Your task to perform on an android device: turn notification dots off Image 0: 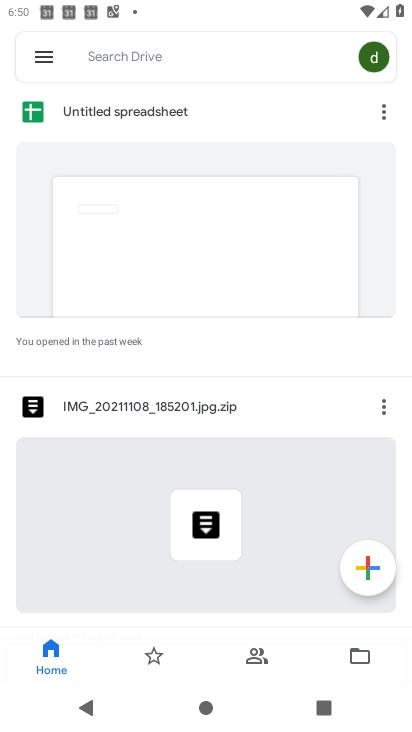
Step 0: press home button
Your task to perform on an android device: turn notification dots off Image 1: 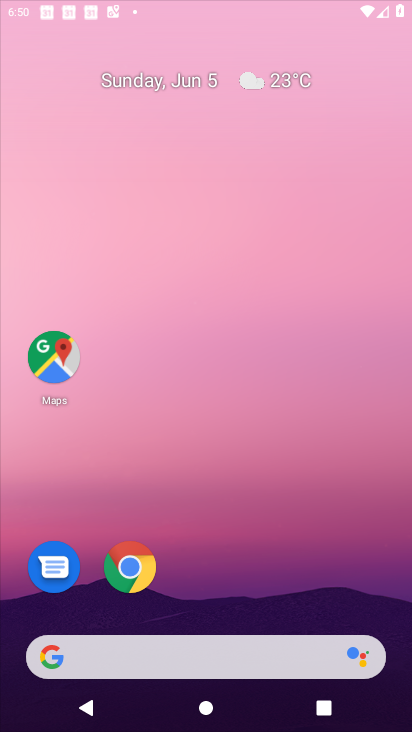
Step 1: drag from (383, 623) to (267, 41)
Your task to perform on an android device: turn notification dots off Image 2: 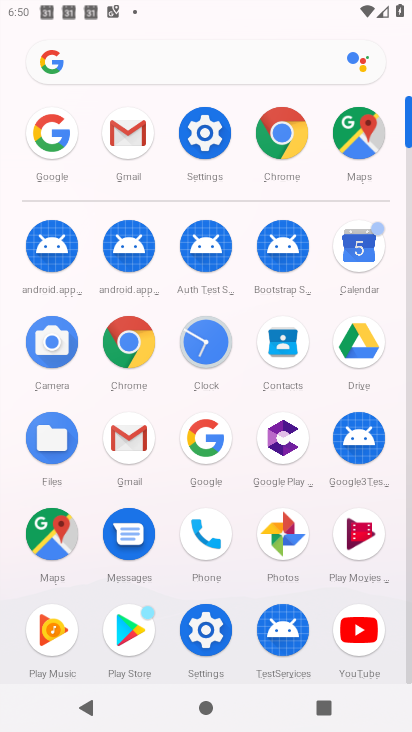
Step 2: click (204, 150)
Your task to perform on an android device: turn notification dots off Image 3: 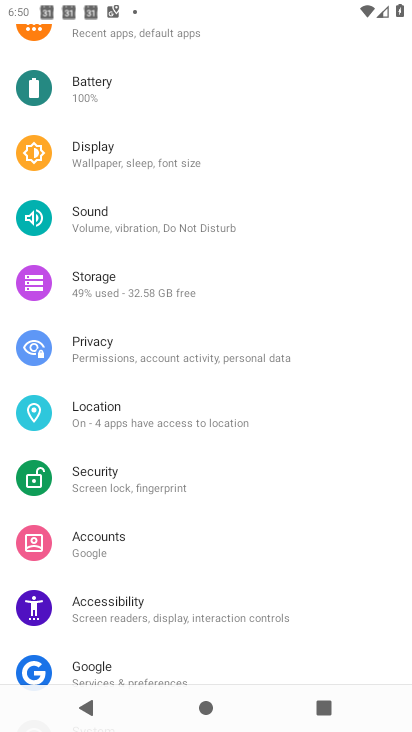
Step 3: drag from (204, 135) to (229, 636)
Your task to perform on an android device: turn notification dots off Image 4: 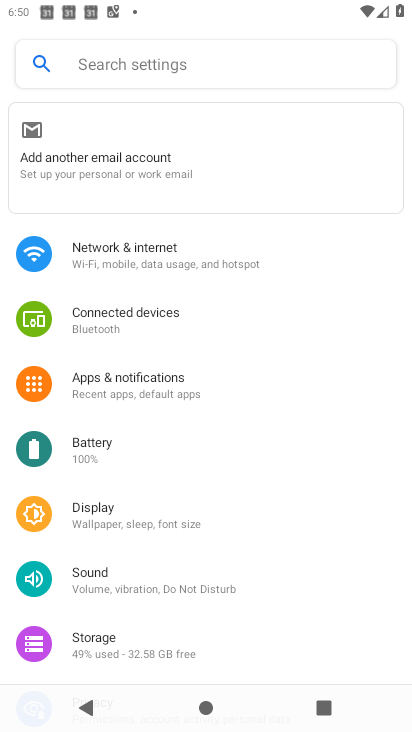
Step 4: click (158, 390)
Your task to perform on an android device: turn notification dots off Image 5: 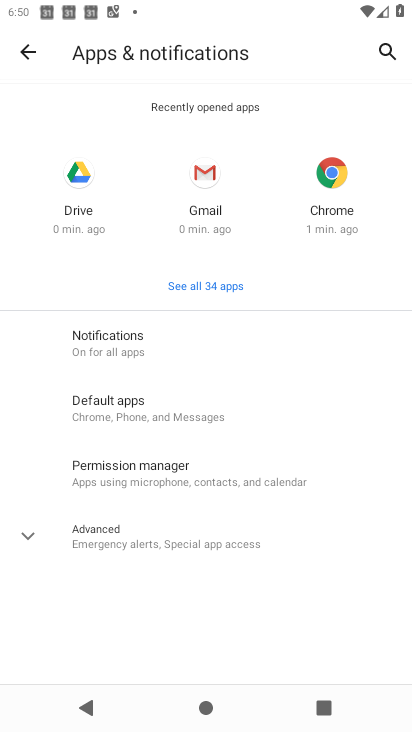
Step 5: click (138, 337)
Your task to perform on an android device: turn notification dots off Image 6: 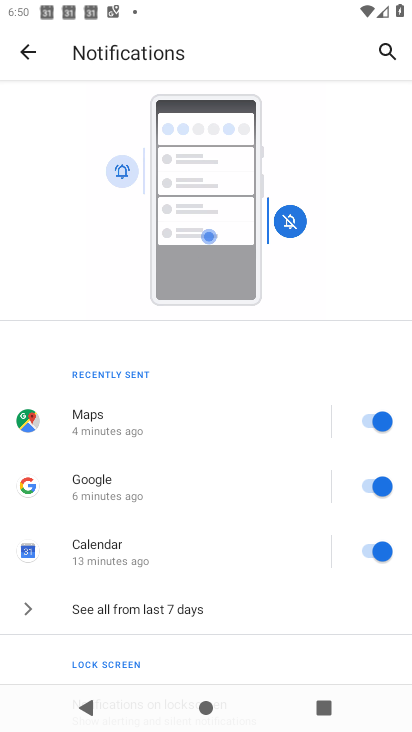
Step 6: drag from (148, 621) to (123, 110)
Your task to perform on an android device: turn notification dots off Image 7: 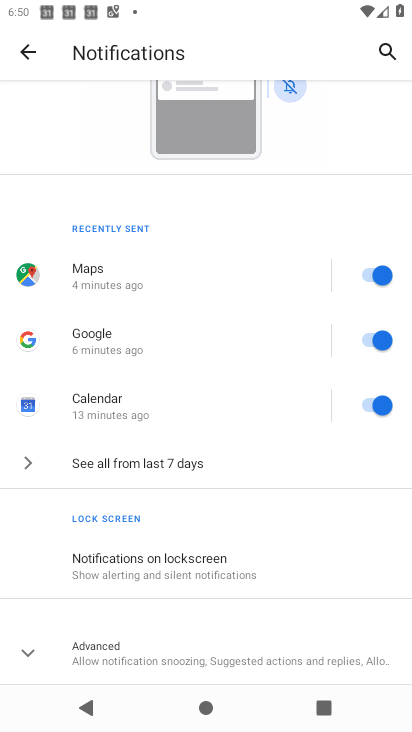
Step 7: click (148, 646)
Your task to perform on an android device: turn notification dots off Image 8: 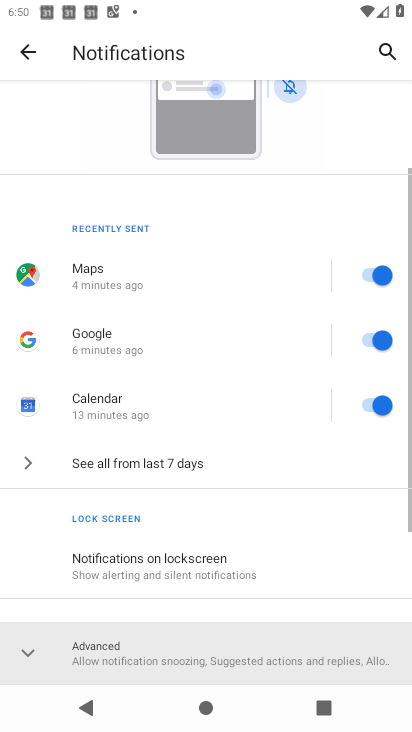
Step 8: click (168, 661)
Your task to perform on an android device: turn notification dots off Image 9: 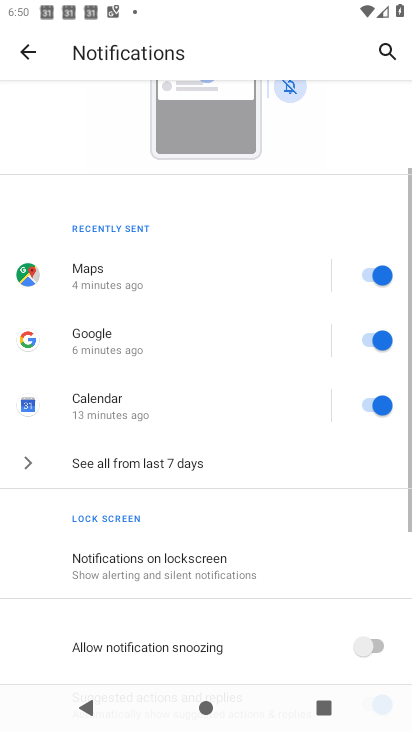
Step 9: drag from (187, 603) to (180, 240)
Your task to perform on an android device: turn notification dots off Image 10: 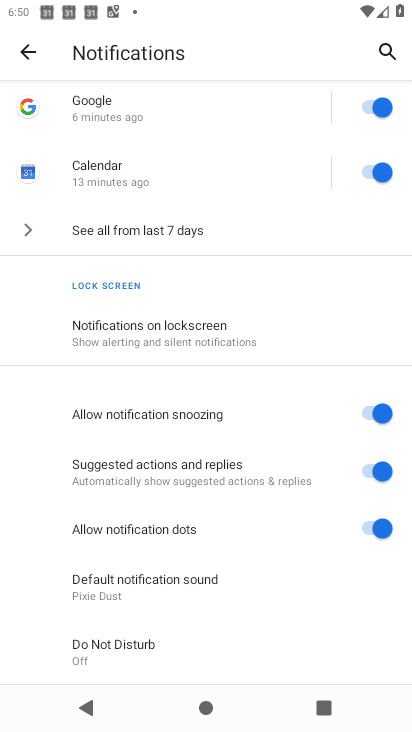
Step 10: click (306, 538)
Your task to perform on an android device: turn notification dots off Image 11: 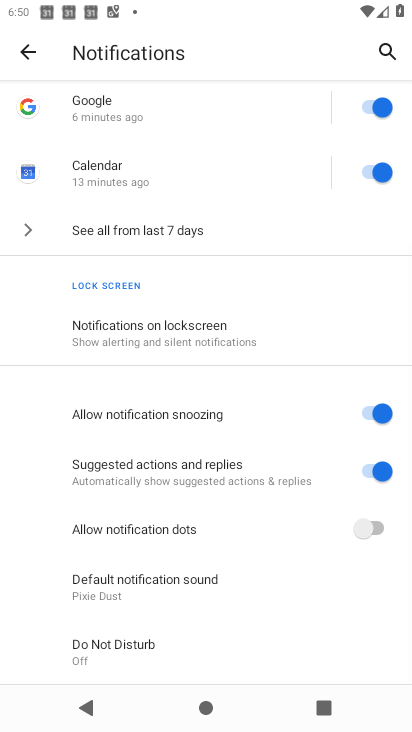
Step 11: task complete